Your task to perform on an android device: turn off picture-in-picture Image 0: 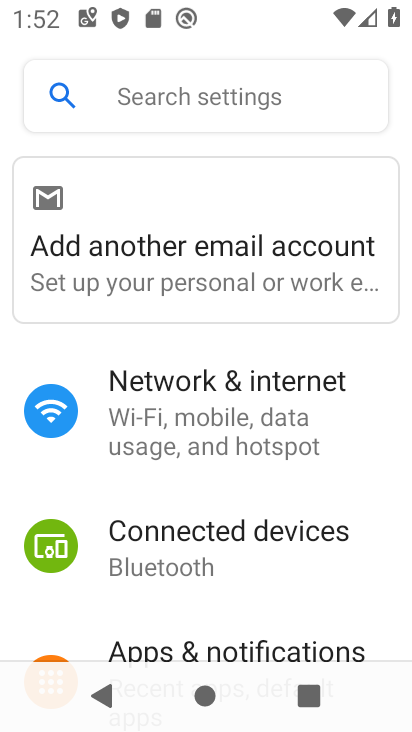
Step 0: click (213, 636)
Your task to perform on an android device: turn off picture-in-picture Image 1: 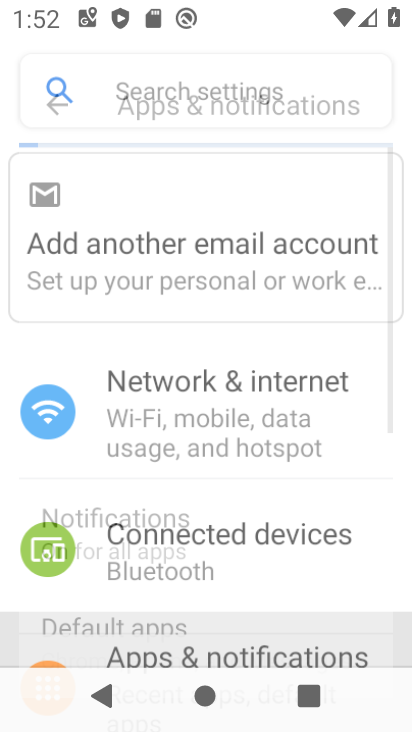
Step 1: drag from (213, 624) to (301, 58)
Your task to perform on an android device: turn off picture-in-picture Image 2: 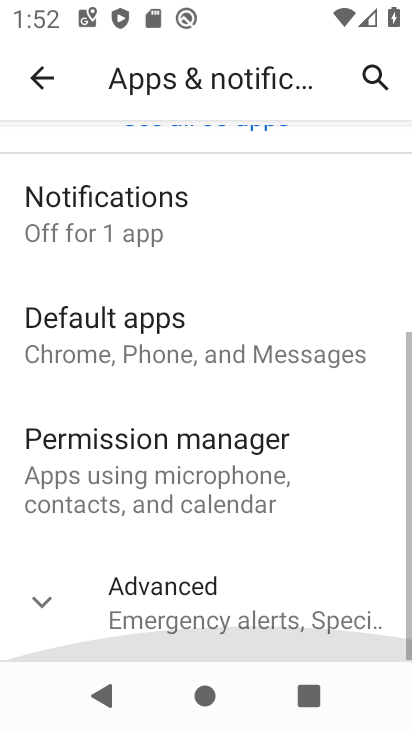
Step 2: drag from (152, 641) to (243, 109)
Your task to perform on an android device: turn off picture-in-picture Image 3: 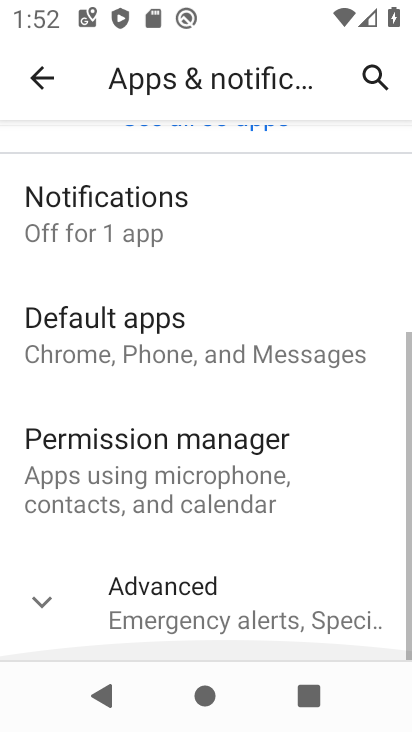
Step 3: drag from (166, 579) to (259, 132)
Your task to perform on an android device: turn off picture-in-picture Image 4: 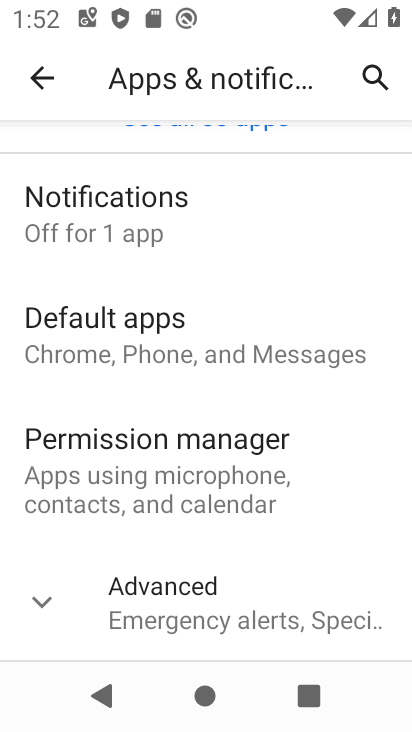
Step 4: drag from (196, 612) to (247, 165)
Your task to perform on an android device: turn off picture-in-picture Image 5: 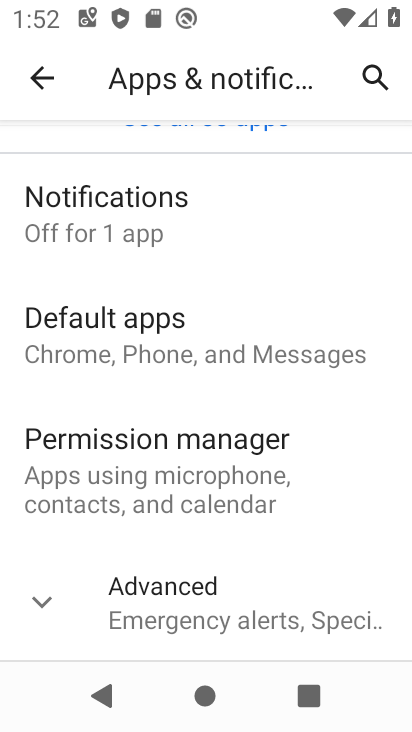
Step 5: click (192, 596)
Your task to perform on an android device: turn off picture-in-picture Image 6: 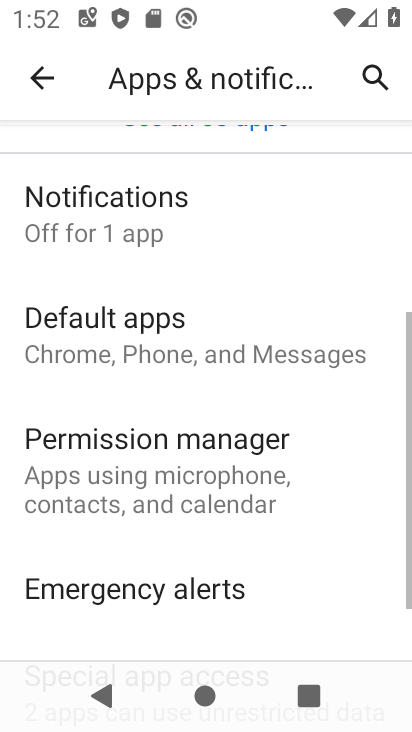
Step 6: drag from (209, 582) to (291, 40)
Your task to perform on an android device: turn off picture-in-picture Image 7: 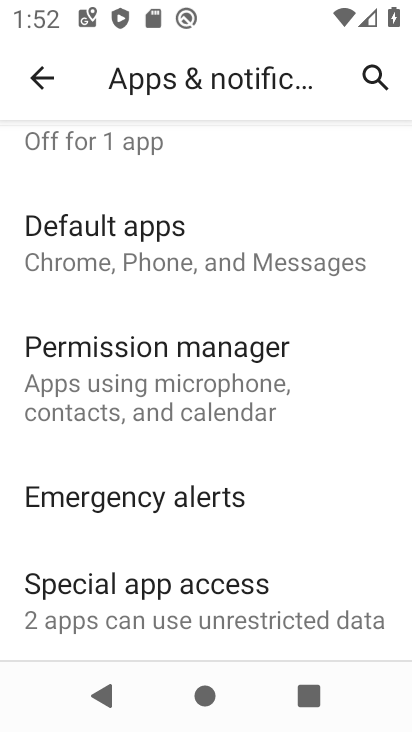
Step 7: click (167, 571)
Your task to perform on an android device: turn off picture-in-picture Image 8: 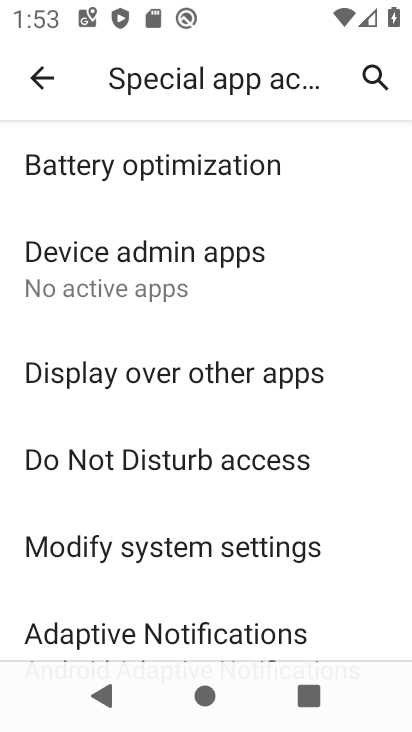
Step 8: drag from (150, 603) to (210, 171)
Your task to perform on an android device: turn off picture-in-picture Image 9: 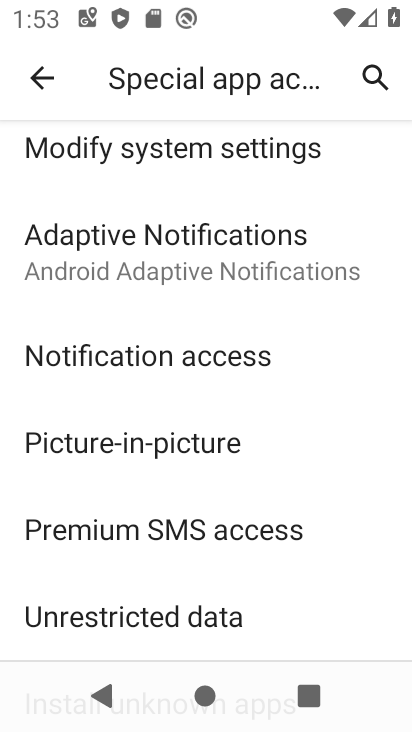
Step 9: click (135, 447)
Your task to perform on an android device: turn off picture-in-picture Image 10: 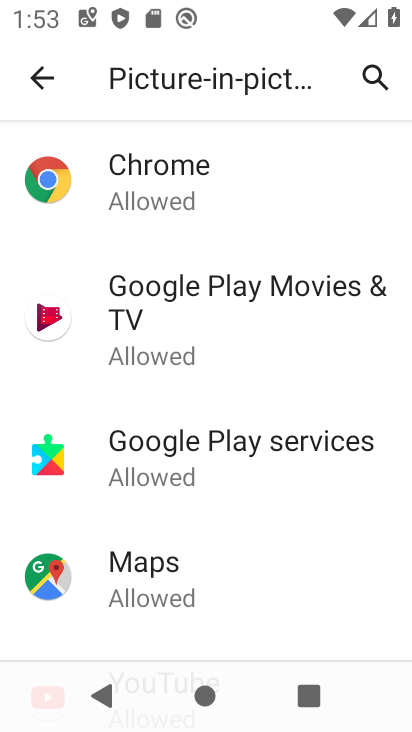
Step 10: click (145, 181)
Your task to perform on an android device: turn off picture-in-picture Image 11: 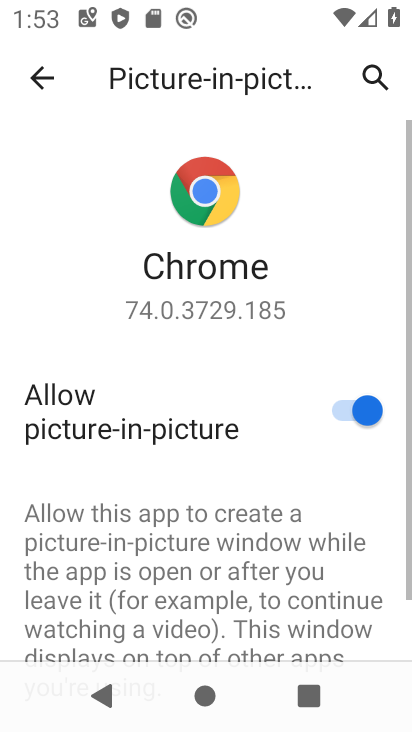
Step 11: click (366, 418)
Your task to perform on an android device: turn off picture-in-picture Image 12: 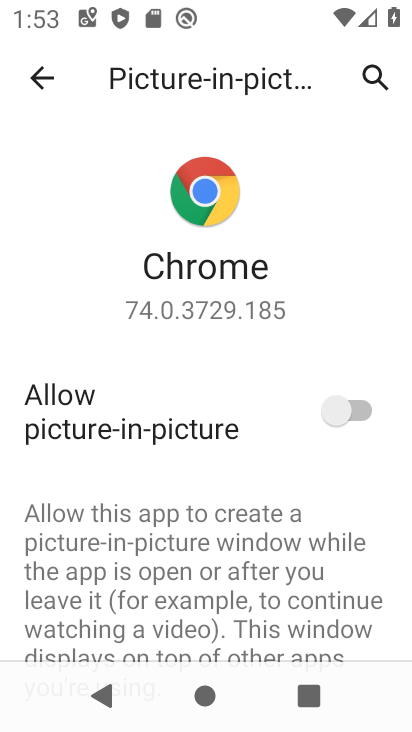
Step 12: task complete